Your task to perform on an android device: Show me the alarms in the clock app Image 0: 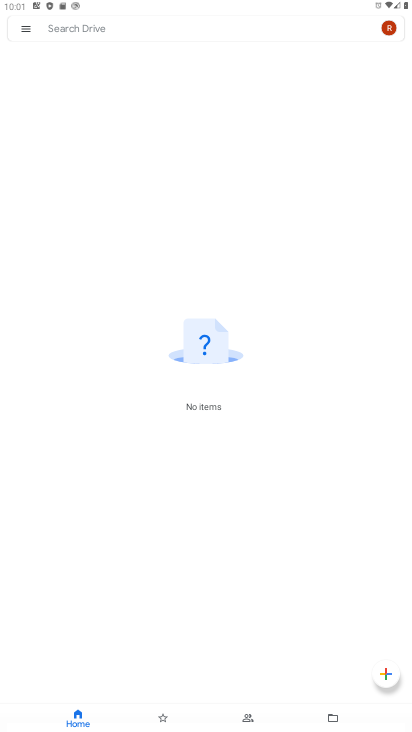
Step 0: press home button
Your task to perform on an android device: Show me the alarms in the clock app Image 1: 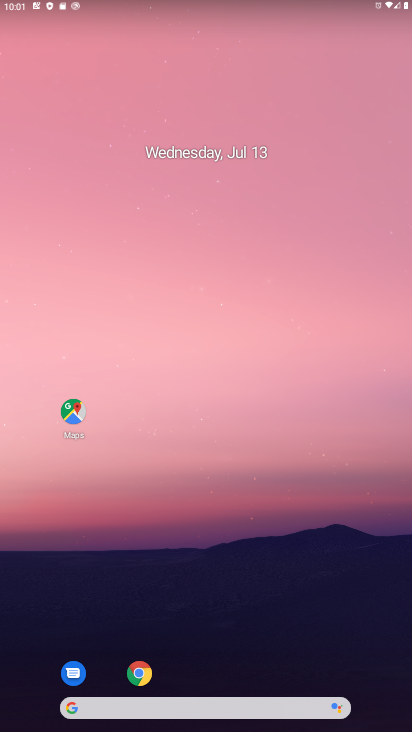
Step 1: drag from (189, 664) to (209, 66)
Your task to perform on an android device: Show me the alarms in the clock app Image 2: 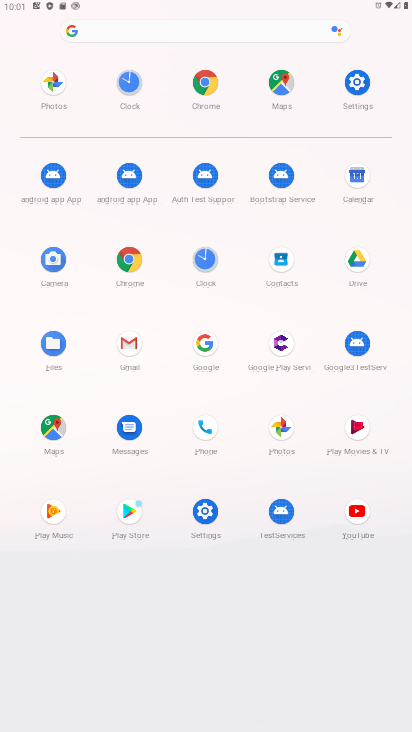
Step 2: click (129, 81)
Your task to perform on an android device: Show me the alarms in the clock app Image 3: 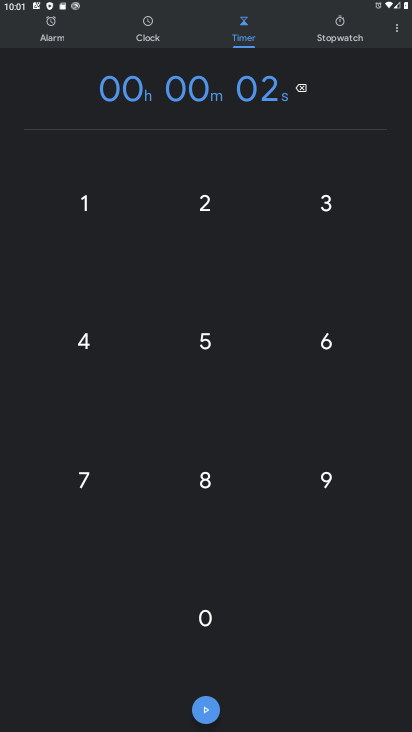
Step 3: click (50, 16)
Your task to perform on an android device: Show me the alarms in the clock app Image 4: 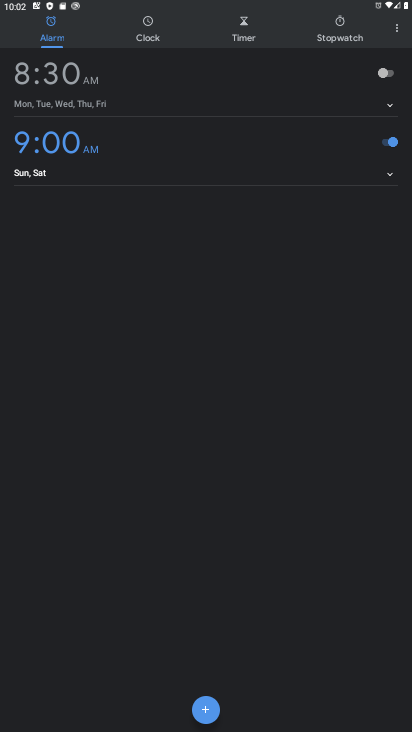
Step 4: task complete